Your task to perform on an android device: Open sound settings Image 0: 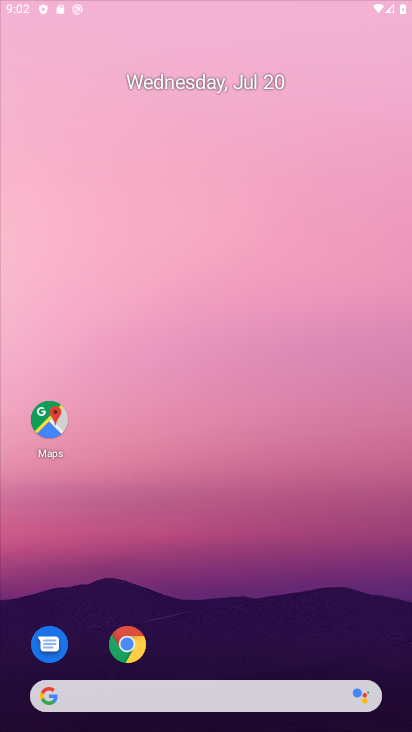
Step 0: press home button
Your task to perform on an android device: Open sound settings Image 1: 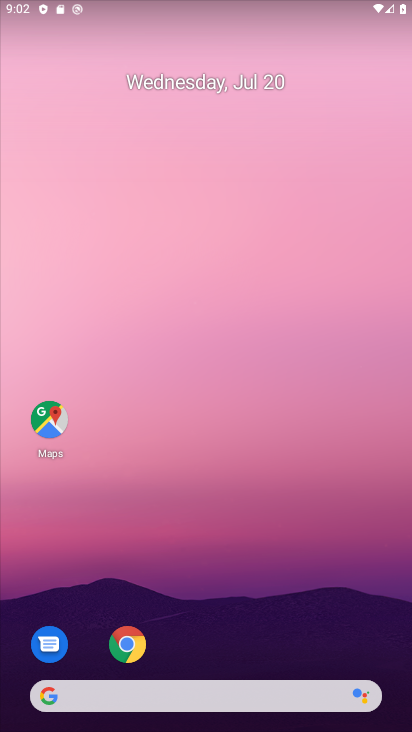
Step 1: drag from (263, 579) to (371, 81)
Your task to perform on an android device: Open sound settings Image 2: 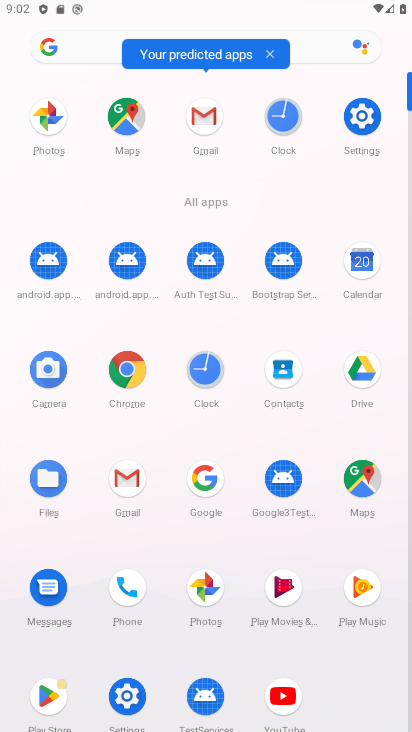
Step 2: click (362, 119)
Your task to perform on an android device: Open sound settings Image 3: 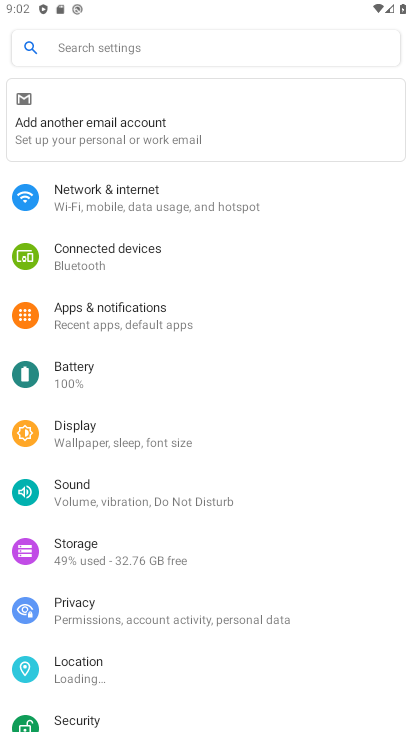
Step 3: click (75, 484)
Your task to perform on an android device: Open sound settings Image 4: 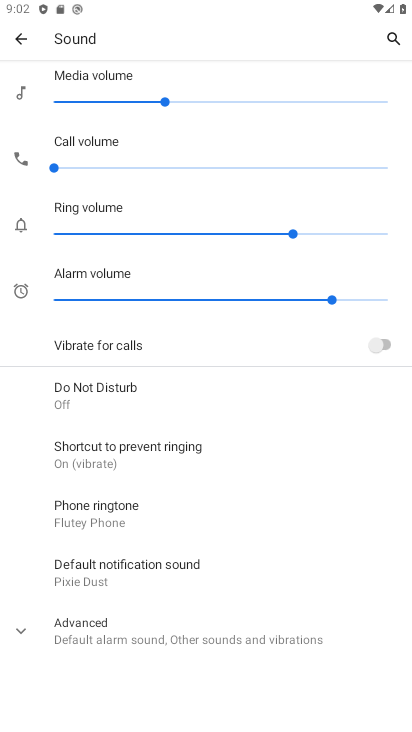
Step 4: task complete